Your task to perform on an android device: What's the weather? Image 0: 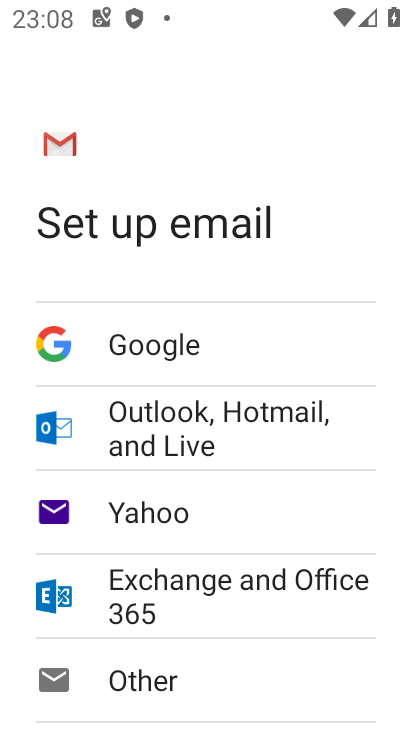
Step 0: press home button
Your task to perform on an android device: What's the weather? Image 1: 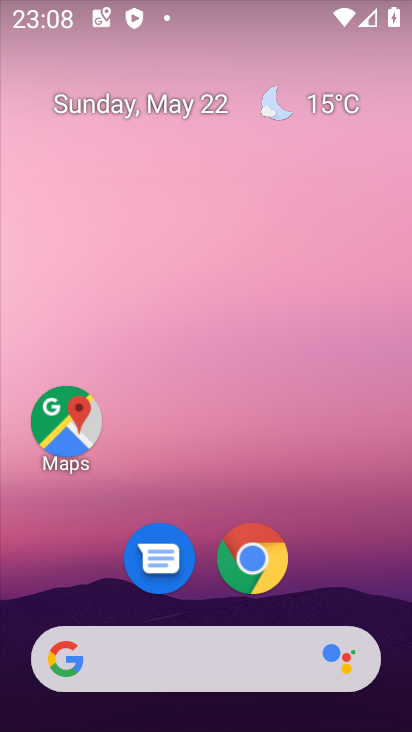
Step 1: click (331, 106)
Your task to perform on an android device: What's the weather? Image 2: 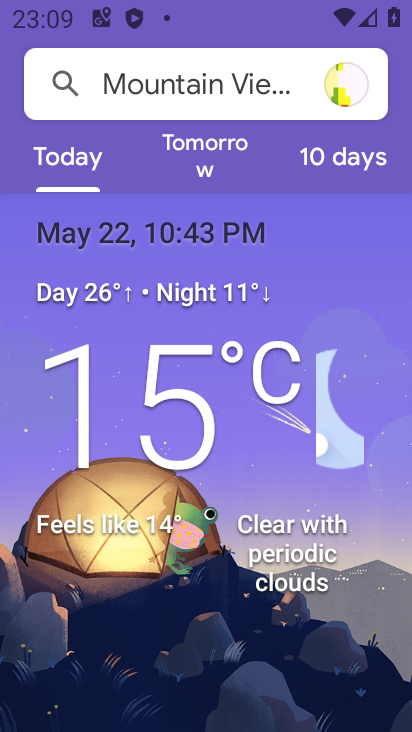
Step 2: task complete